Your task to perform on an android device: set the stopwatch Image 0: 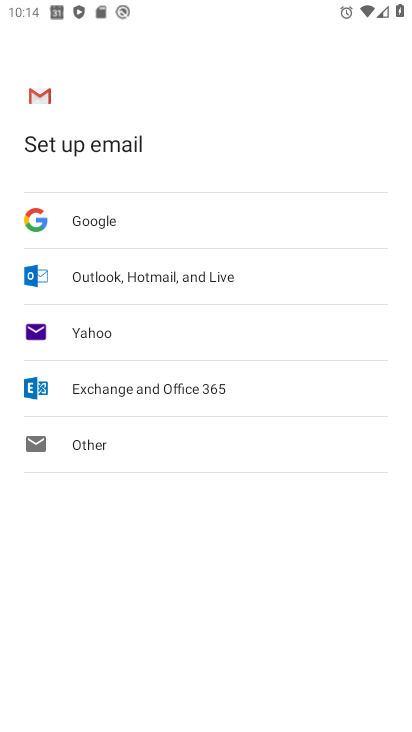
Step 0: drag from (200, 626) to (221, 174)
Your task to perform on an android device: set the stopwatch Image 1: 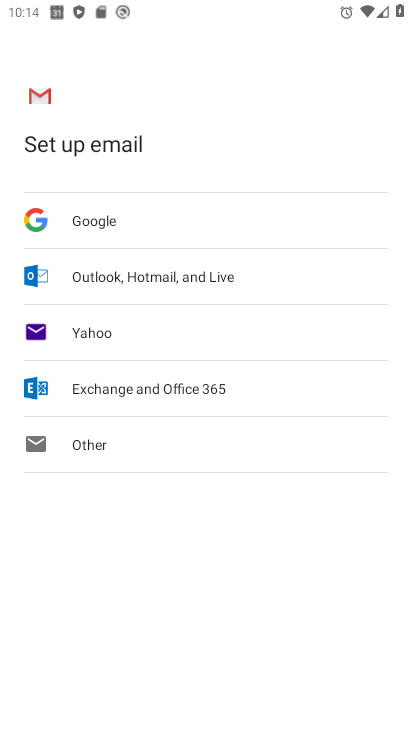
Step 1: press home button
Your task to perform on an android device: set the stopwatch Image 2: 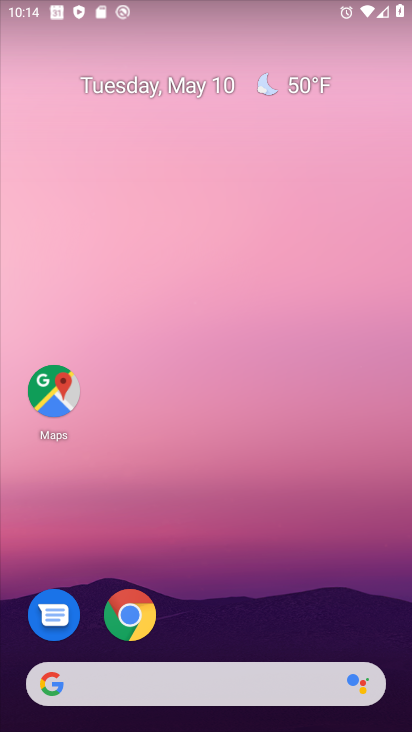
Step 2: drag from (211, 636) to (262, 124)
Your task to perform on an android device: set the stopwatch Image 3: 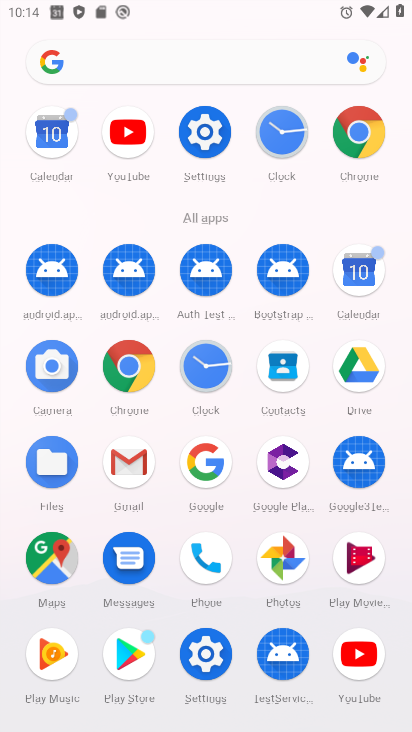
Step 3: click (281, 126)
Your task to perform on an android device: set the stopwatch Image 4: 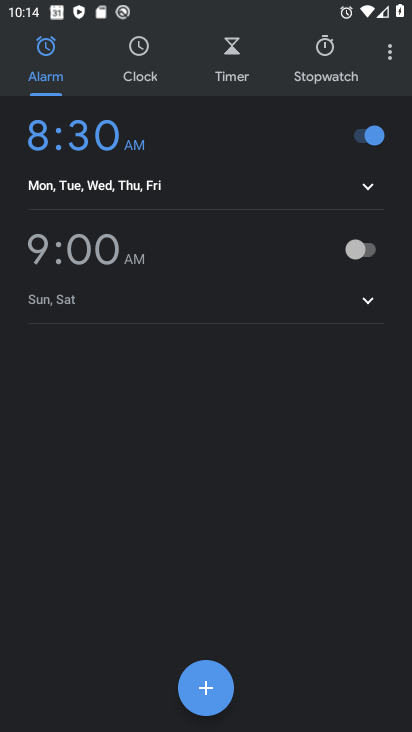
Step 4: click (326, 46)
Your task to perform on an android device: set the stopwatch Image 5: 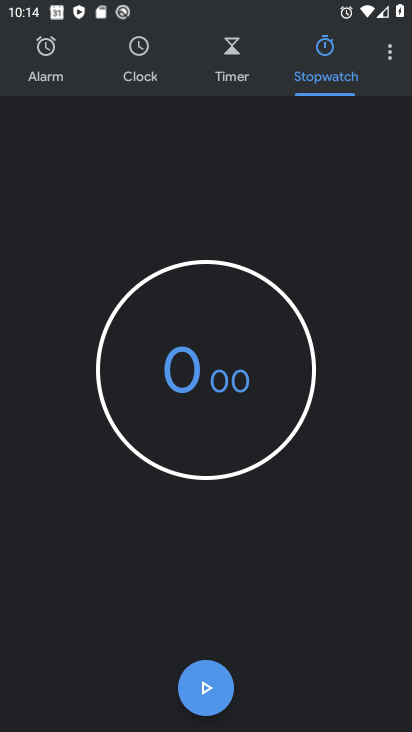
Step 5: click (203, 678)
Your task to perform on an android device: set the stopwatch Image 6: 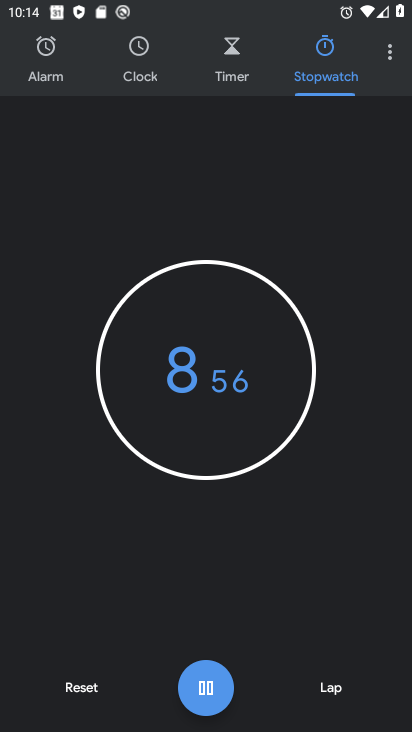
Step 6: task complete